Your task to perform on an android device: delete location history Image 0: 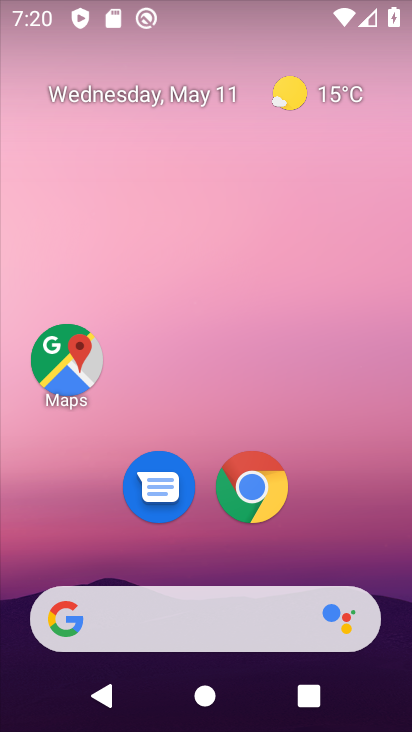
Step 0: drag from (325, 645) to (287, 241)
Your task to perform on an android device: delete location history Image 1: 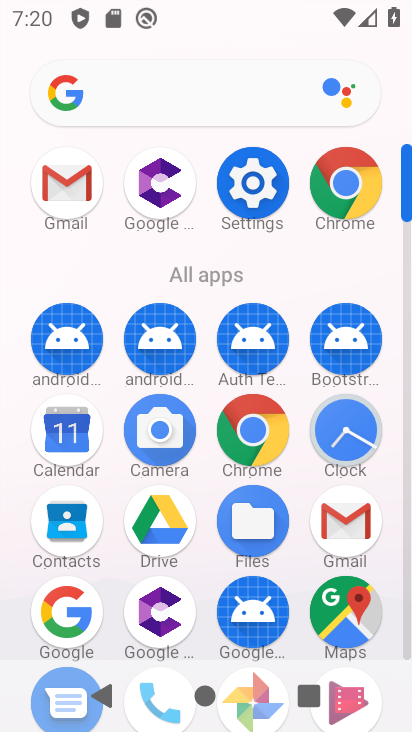
Step 1: click (255, 219)
Your task to perform on an android device: delete location history Image 2: 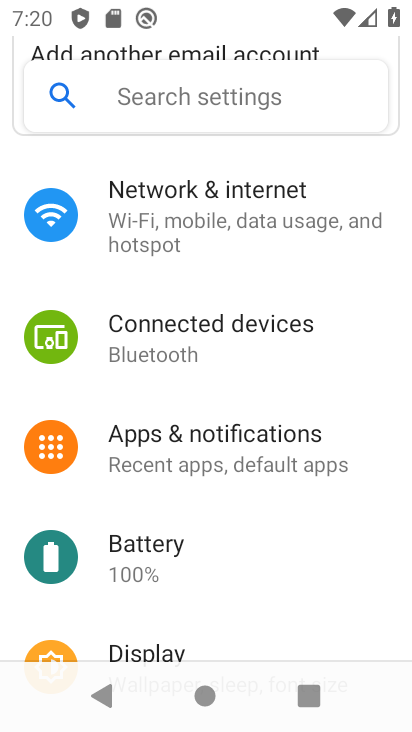
Step 2: click (213, 120)
Your task to perform on an android device: delete location history Image 3: 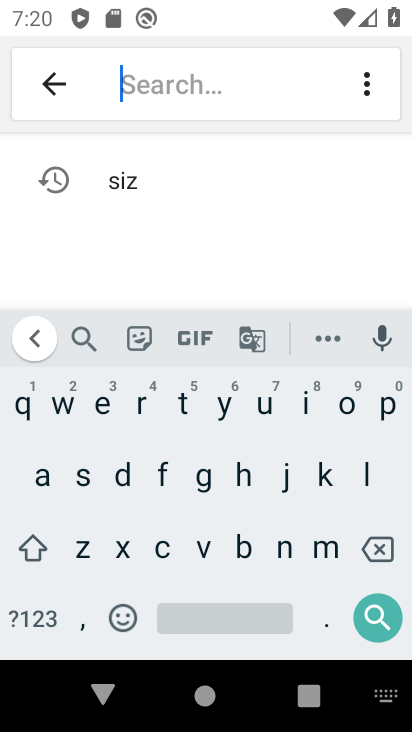
Step 3: click (367, 491)
Your task to perform on an android device: delete location history Image 4: 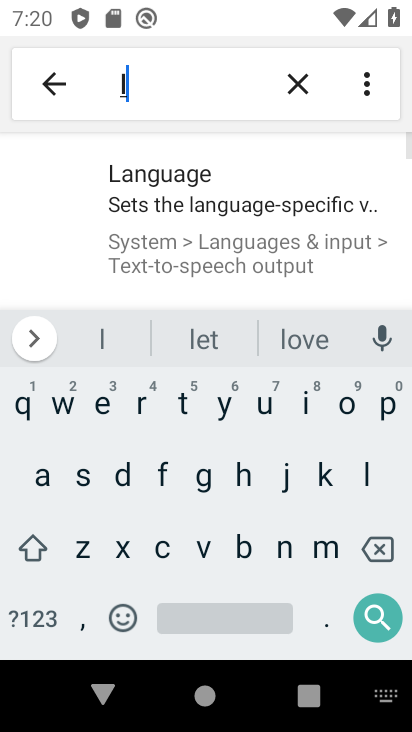
Step 4: click (347, 416)
Your task to perform on an android device: delete location history Image 5: 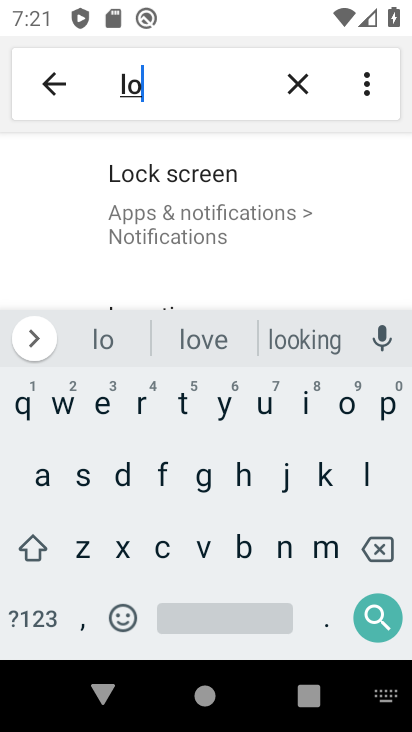
Step 5: click (166, 546)
Your task to perform on an android device: delete location history Image 6: 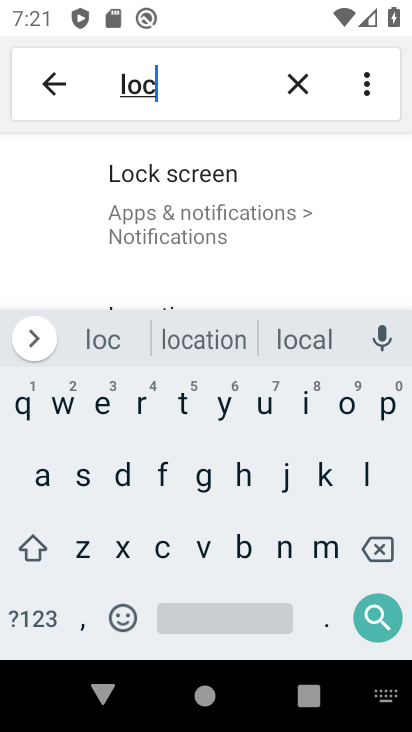
Step 6: drag from (233, 233) to (233, 141)
Your task to perform on an android device: delete location history Image 7: 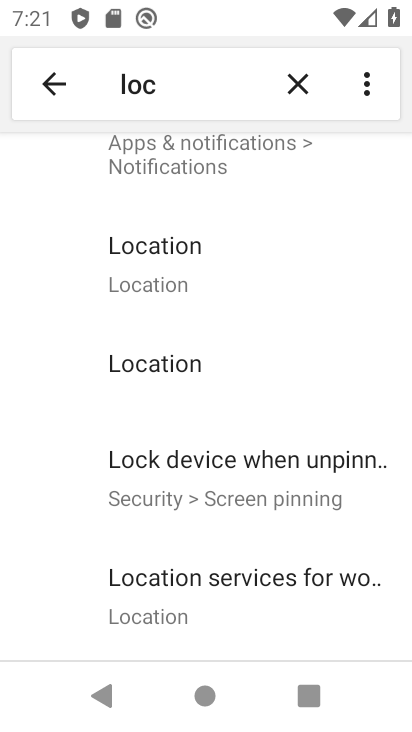
Step 7: click (189, 257)
Your task to perform on an android device: delete location history Image 8: 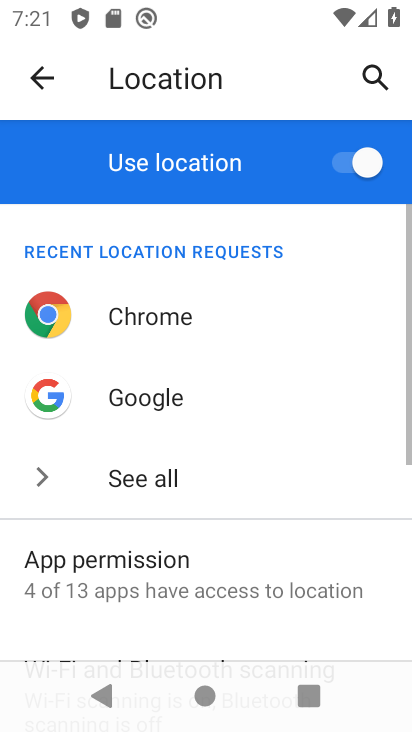
Step 8: task complete